Your task to perform on an android device: Show me popular games on the Play Store Image 0: 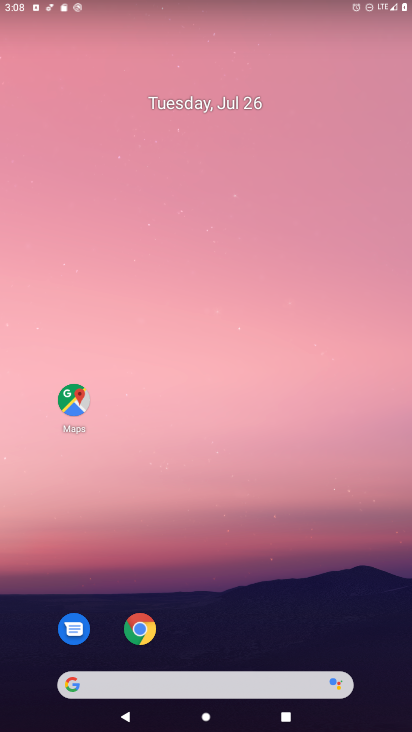
Step 0: drag from (375, 675) to (338, 195)
Your task to perform on an android device: Show me popular games on the Play Store Image 1: 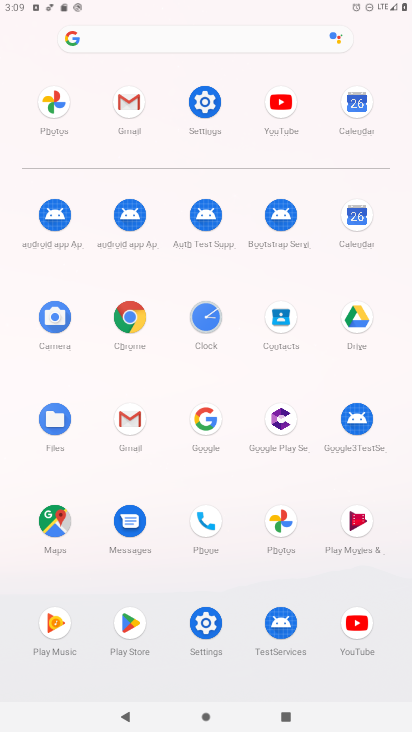
Step 1: click (134, 622)
Your task to perform on an android device: Show me popular games on the Play Store Image 2: 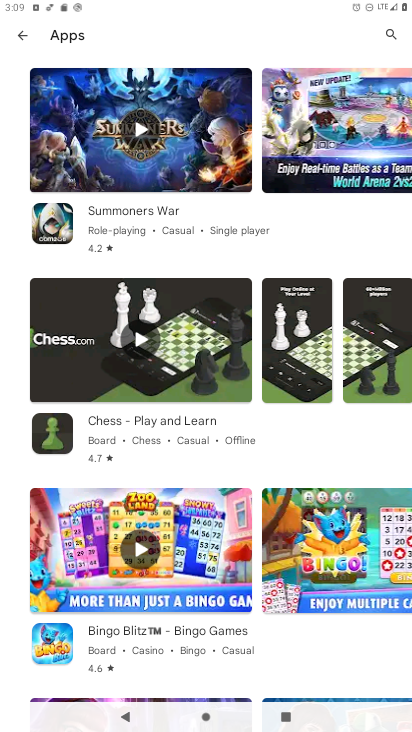
Step 2: press back button
Your task to perform on an android device: Show me popular games on the Play Store Image 3: 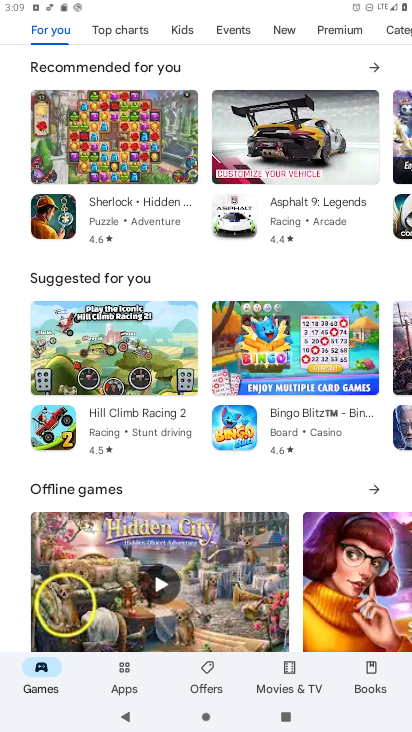
Step 3: drag from (298, 506) to (290, 154)
Your task to perform on an android device: Show me popular games on the Play Store Image 4: 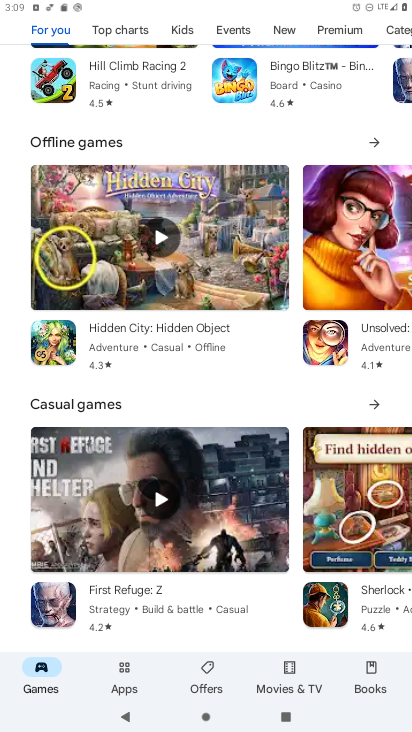
Step 4: drag from (294, 548) to (262, 44)
Your task to perform on an android device: Show me popular games on the Play Store Image 5: 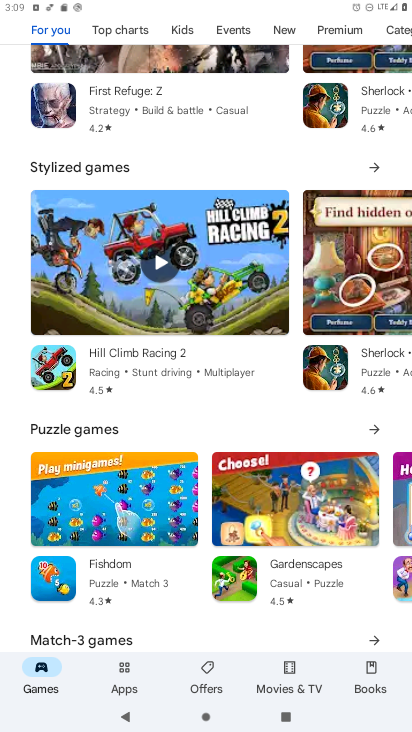
Step 5: drag from (203, 559) to (240, 133)
Your task to perform on an android device: Show me popular games on the Play Store Image 6: 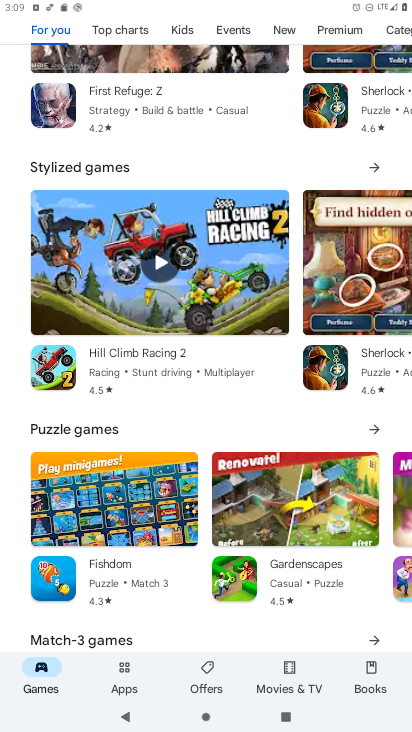
Step 6: drag from (241, 647) to (218, 117)
Your task to perform on an android device: Show me popular games on the Play Store Image 7: 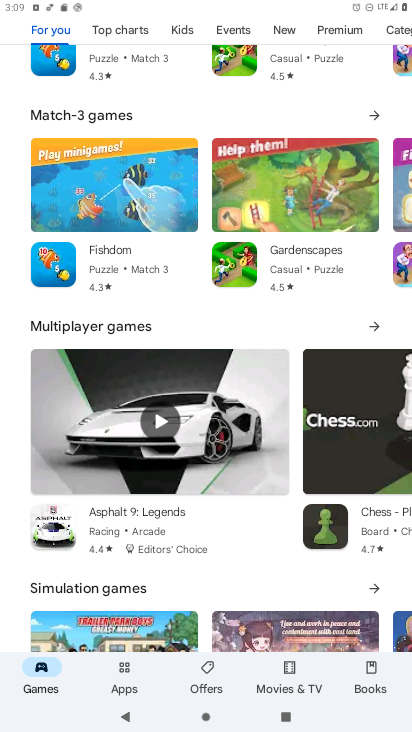
Step 7: drag from (270, 607) to (274, 94)
Your task to perform on an android device: Show me popular games on the Play Store Image 8: 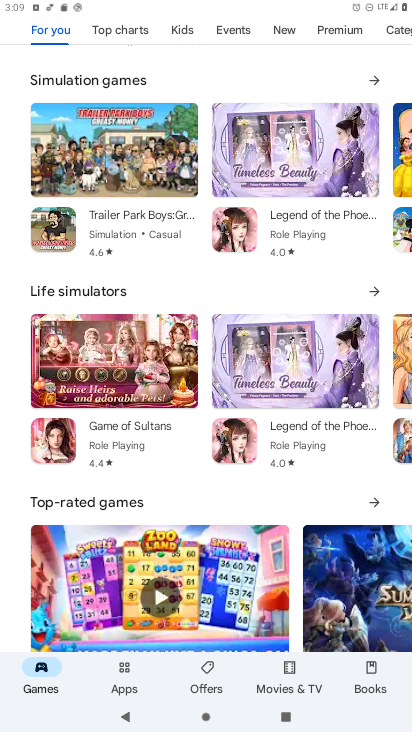
Step 8: drag from (294, 528) to (281, 101)
Your task to perform on an android device: Show me popular games on the Play Store Image 9: 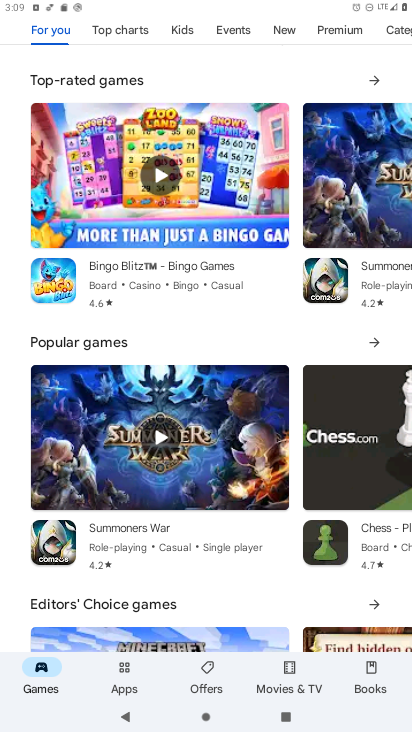
Step 9: click (373, 340)
Your task to perform on an android device: Show me popular games on the Play Store Image 10: 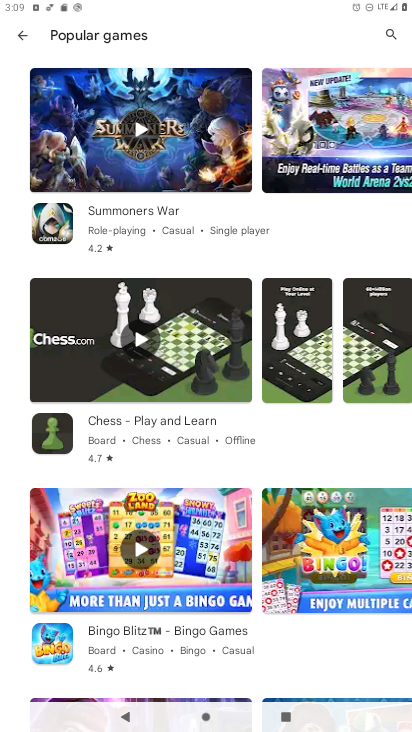
Step 10: task complete